Your task to perform on an android device: move a message to another label in the gmail app Image 0: 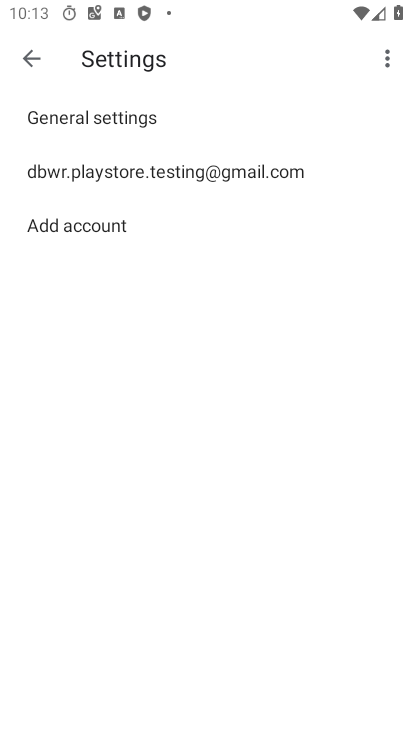
Step 0: press home button
Your task to perform on an android device: move a message to another label in the gmail app Image 1: 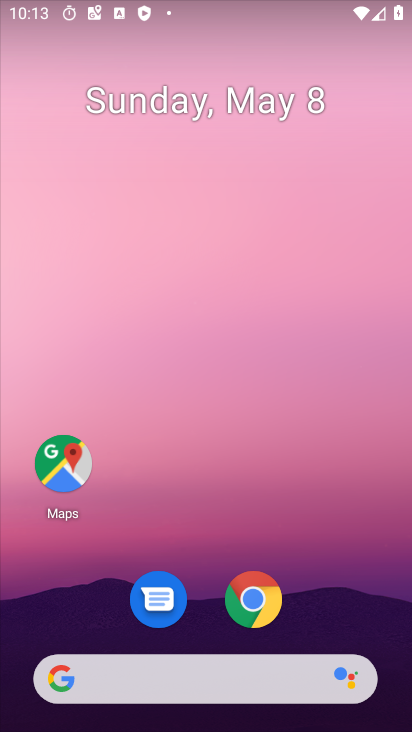
Step 1: drag from (213, 627) to (246, 160)
Your task to perform on an android device: move a message to another label in the gmail app Image 2: 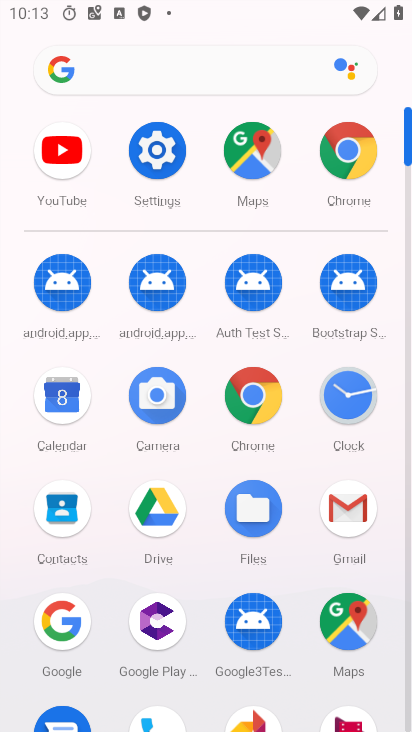
Step 2: click (350, 513)
Your task to perform on an android device: move a message to another label in the gmail app Image 3: 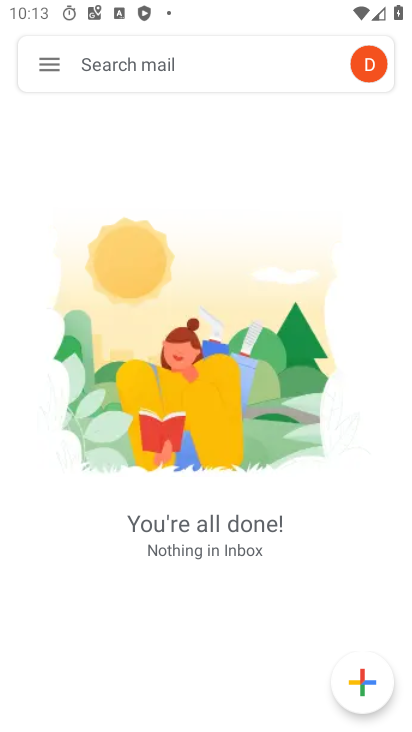
Step 3: click (51, 59)
Your task to perform on an android device: move a message to another label in the gmail app Image 4: 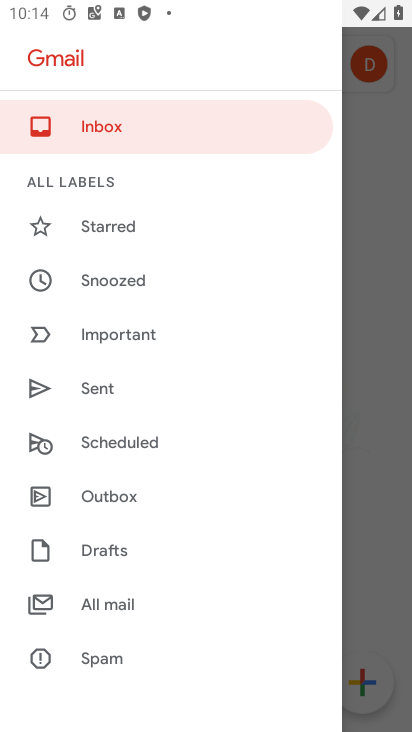
Step 4: drag from (145, 565) to (137, 267)
Your task to perform on an android device: move a message to another label in the gmail app Image 5: 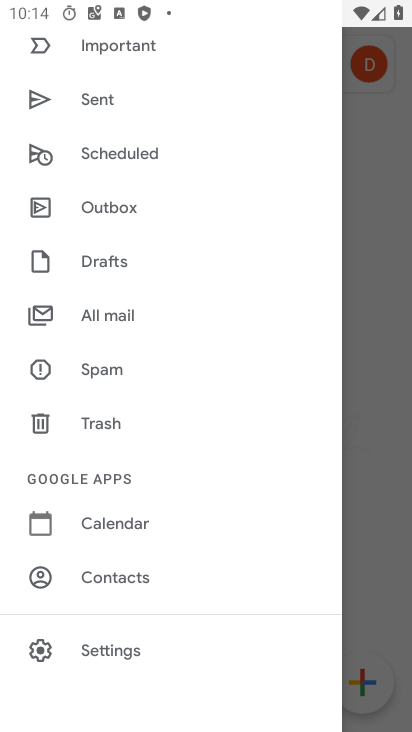
Step 5: click (124, 374)
Your task to perform on an android device: move a message to another label in the gmail app Image 6: 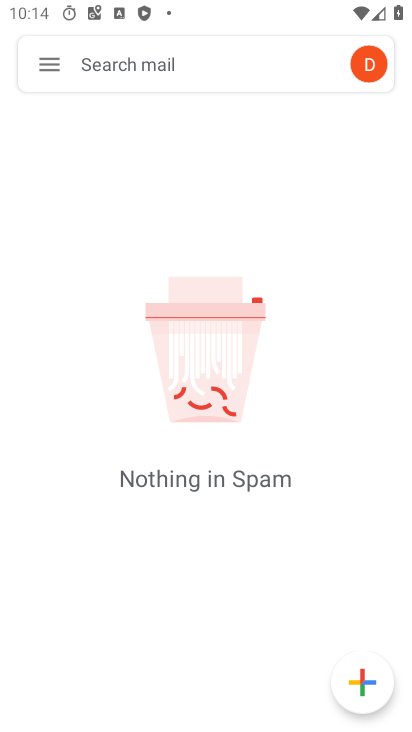
Step 6: task complete